Your task to perform on an android device: Check the news Image 0: 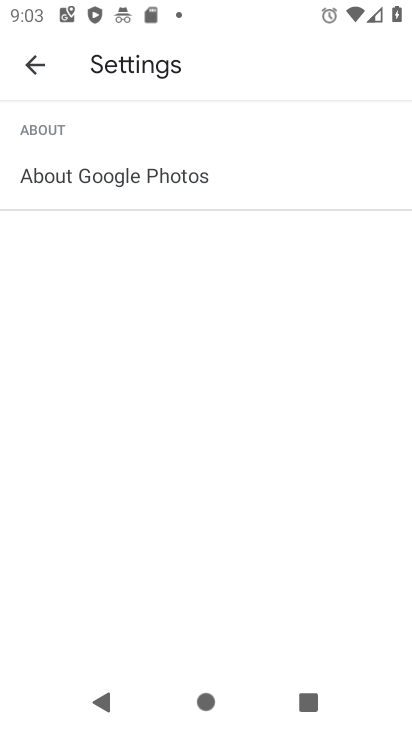
Step 0: press home button
Your task to perform on an android device: Check the news Image 1: 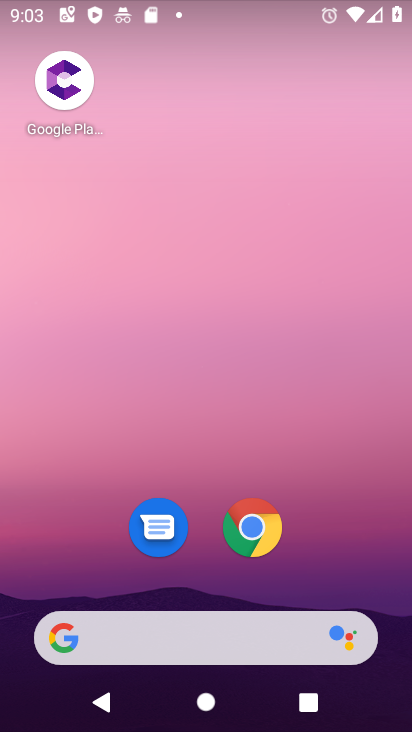
Step 1: click (143, 635)
Your task to perform on an android device: Check the news Image 2: 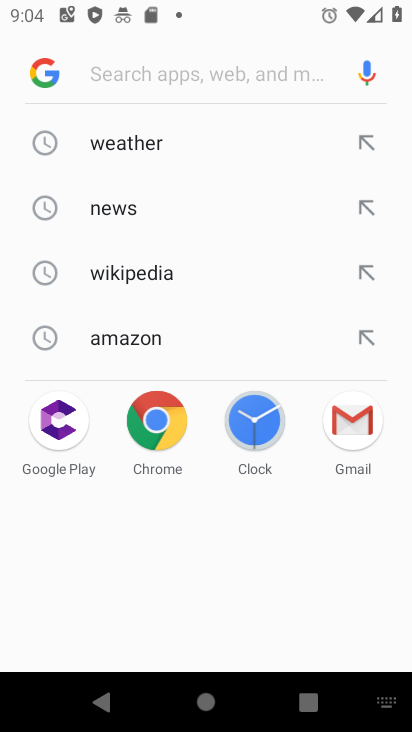
Step 2: type "news"
Your task to perform on an android device: Check the news Image 3: 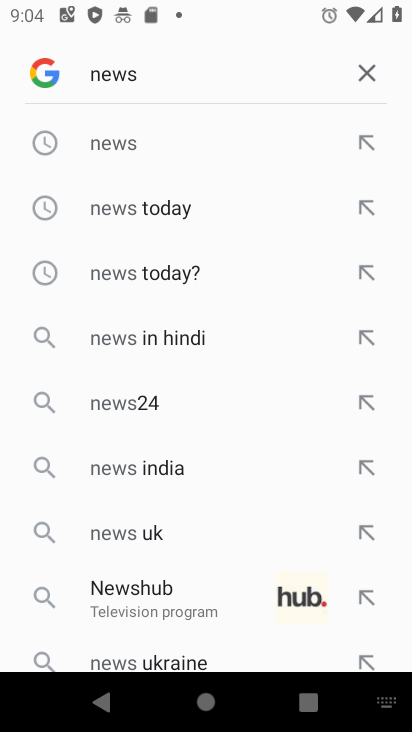
Step 3: click (123, 149)
Your task to perform on an android device: Check the news Image 4: 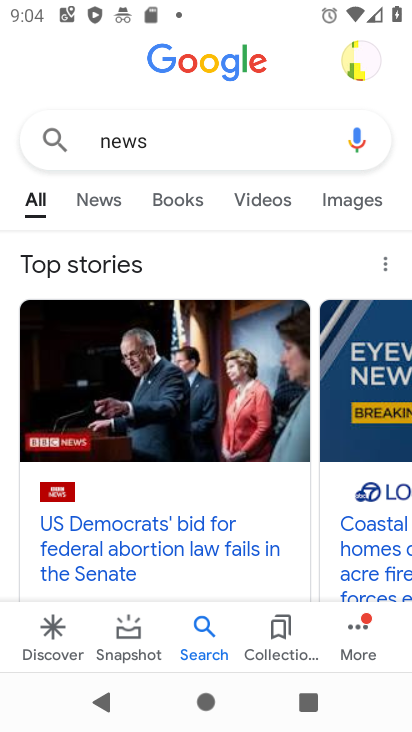
Step 4: click (91, 200)
Your task to perform on an android device: Check the news Image 5: 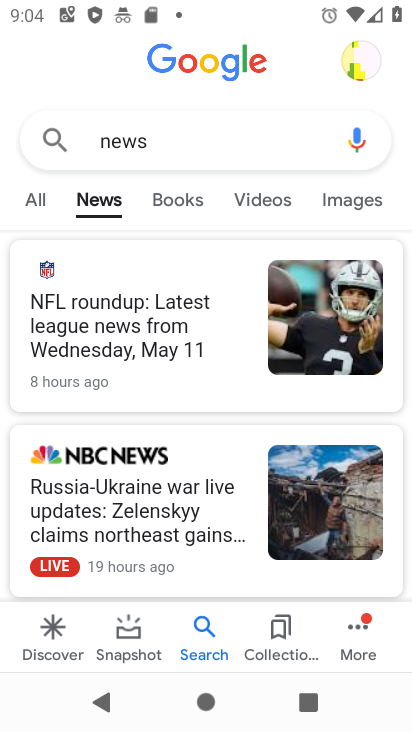
Step 5: click (123, 327)
Your task to perform on an android device: Check the news Image 6: 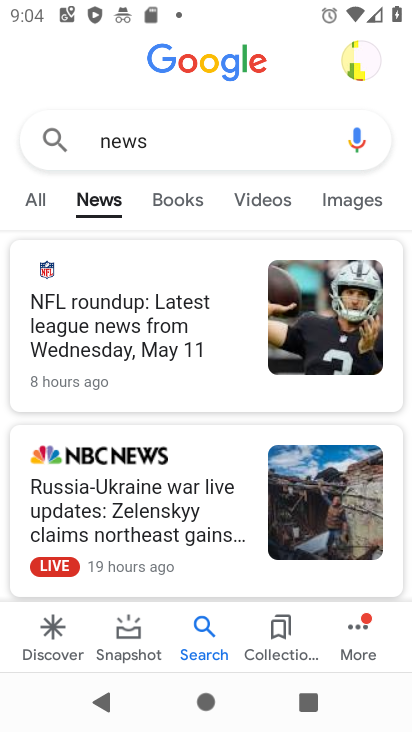
Step 6: click (156, 327)
Your task to perform on an android device: Check the news Image 7: 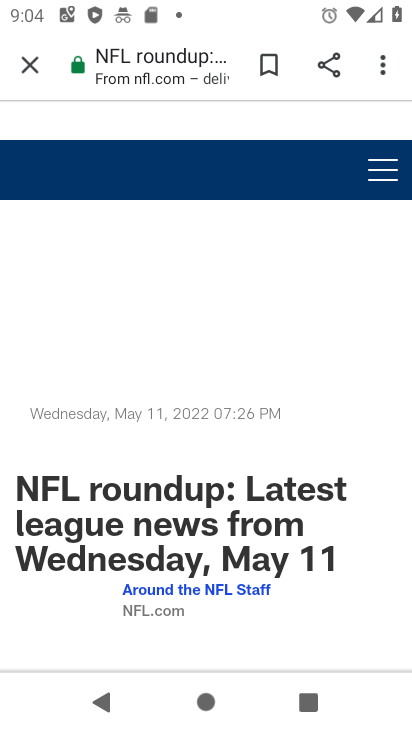
Step 7: task complete